Your task to perform on an android device: Open Google Chrome and click the shortcut for Amazon.com Image 0: 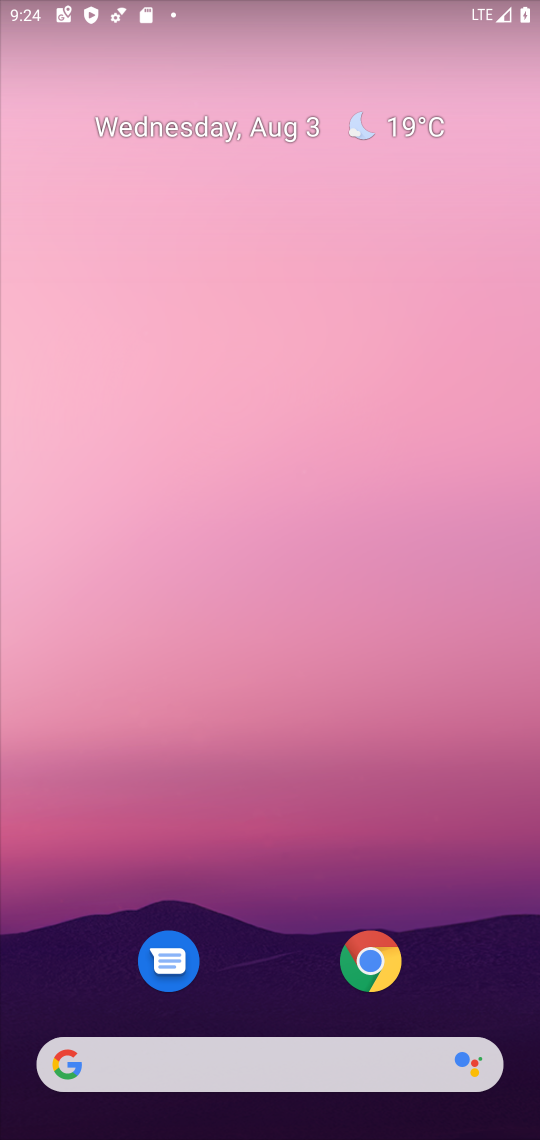
Step 0: click (389, 972)
Your task to perform on an android device: Open Google Chrome and click the shortcut for Amazon.com Image 1: 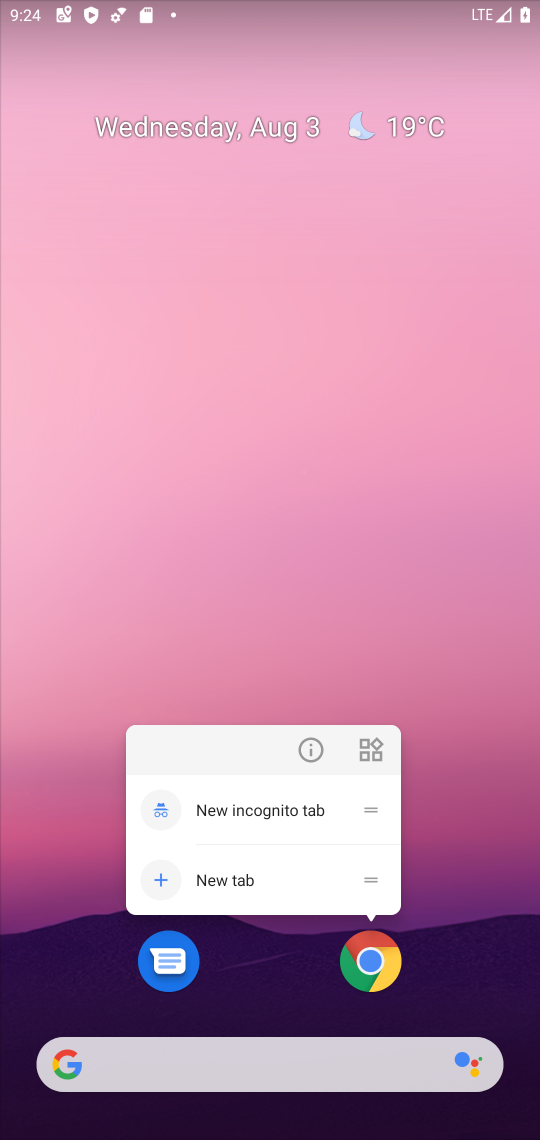
Step 1: click (391, 971)
Your task to perform on an android device: Open Google Chrome and click the shortcut for Amazon.com Image 2: 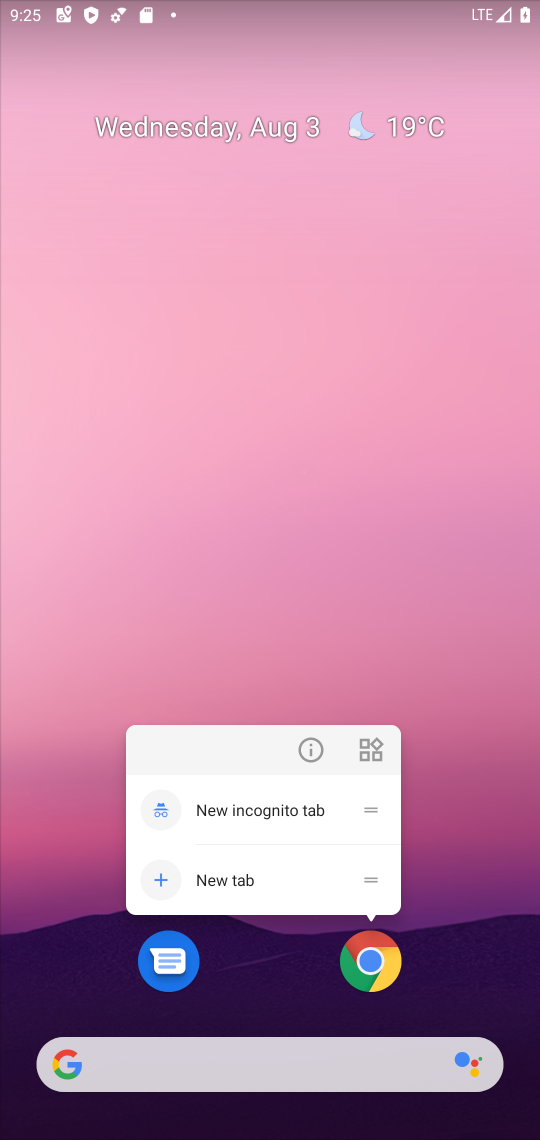
Step 2: click (388, 959)
Your task to perform on an android device: Open Google Chrome and click the shortcut for Amazon.com Image 3: 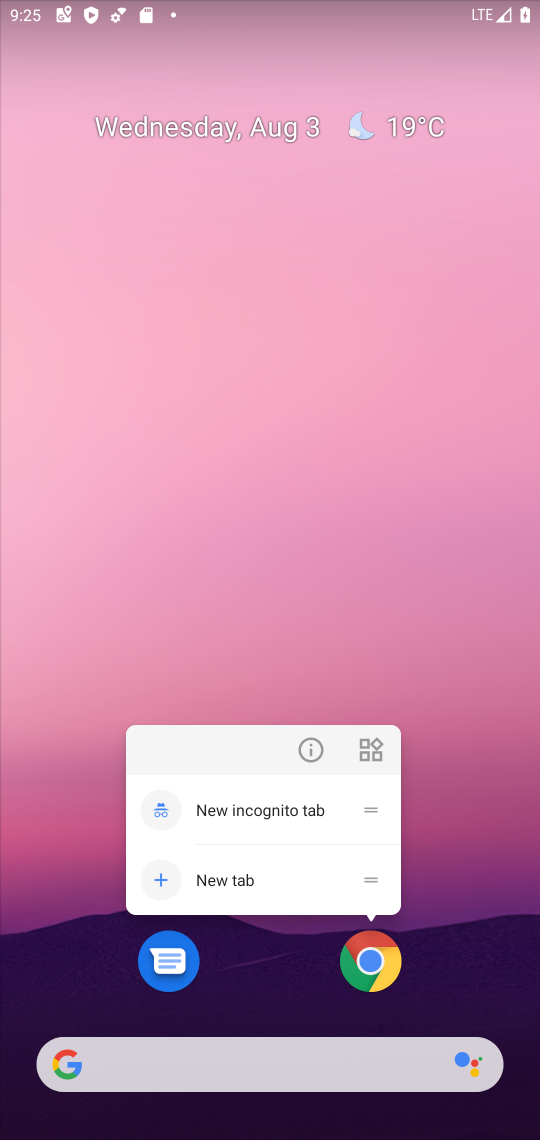
Step 3: click (371, 957)
Your task to perform on an android device: Open Google Chrome and click the shortcut for Amazon.com Image 4: 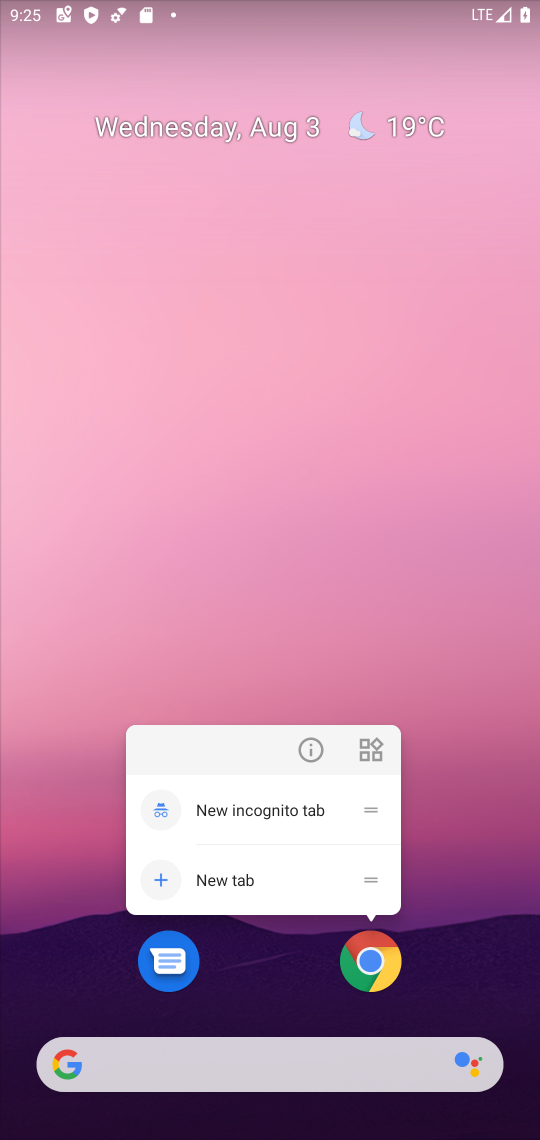
Step 4: click (369, 954)
Your task to perform on an android device: Open Google Chrome and click the shortcut for Amazon.com Image 5: 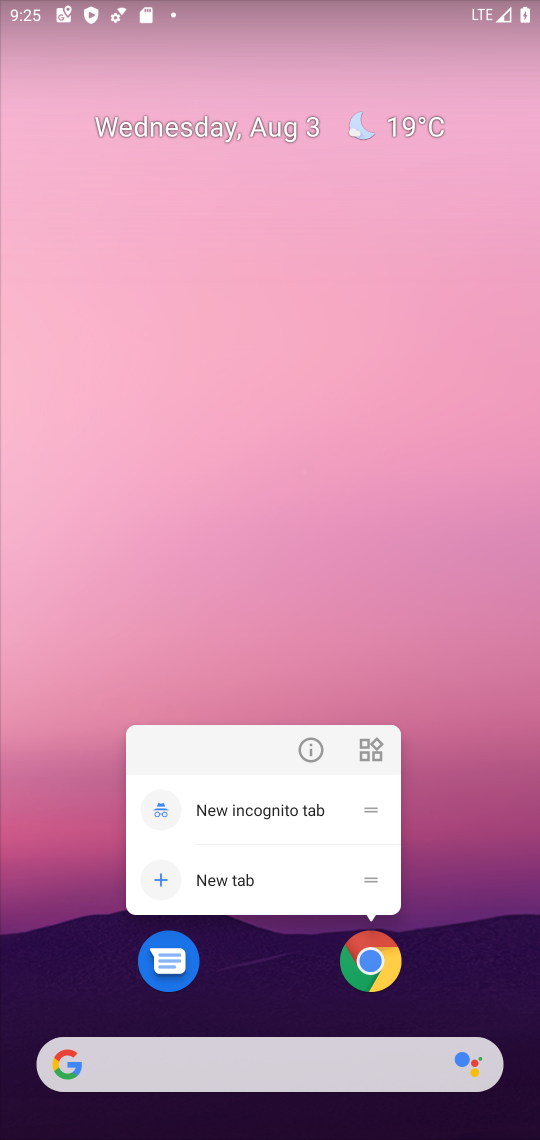
Step 5: click (306, 769)
Your task to perform on an android device: Open Google Chrome and click the shortcut for Amazon.com Image 6: 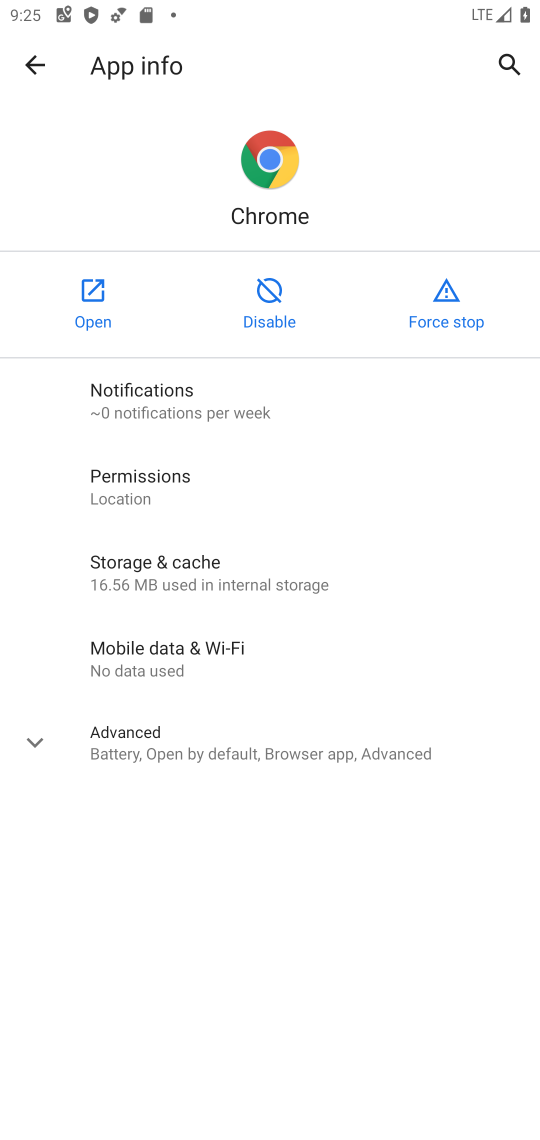
Step 6: click (96, 301)
Your task to perform on an android device: Open Google Chrome and click the shortcut for Amazon.com Image 7: 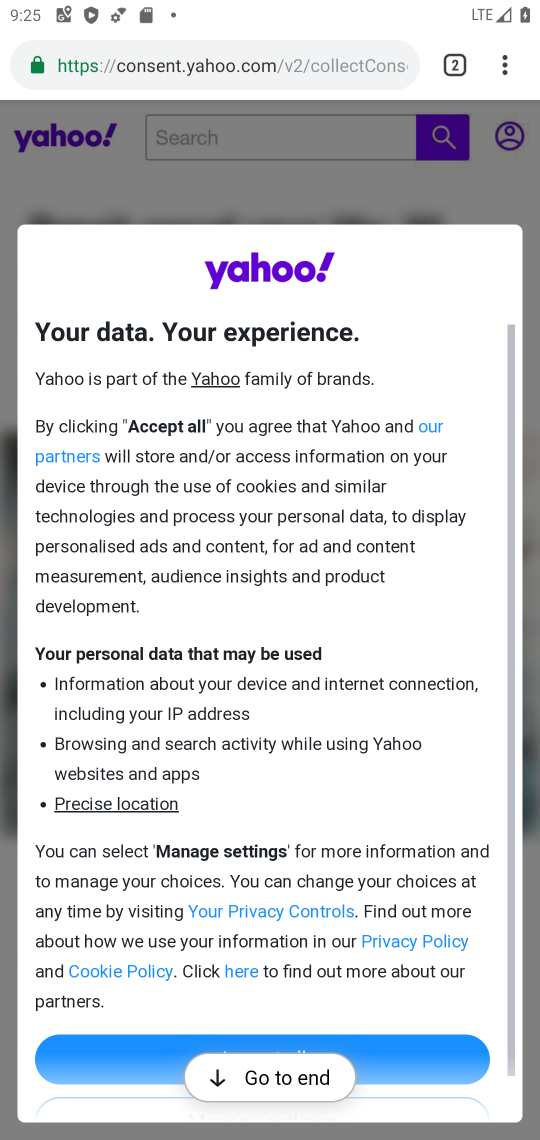
Step 7: click (457, 82)
Your task to perform on an android device: Open Google Chrome and click the shortcut for Amazon.com Image 8: 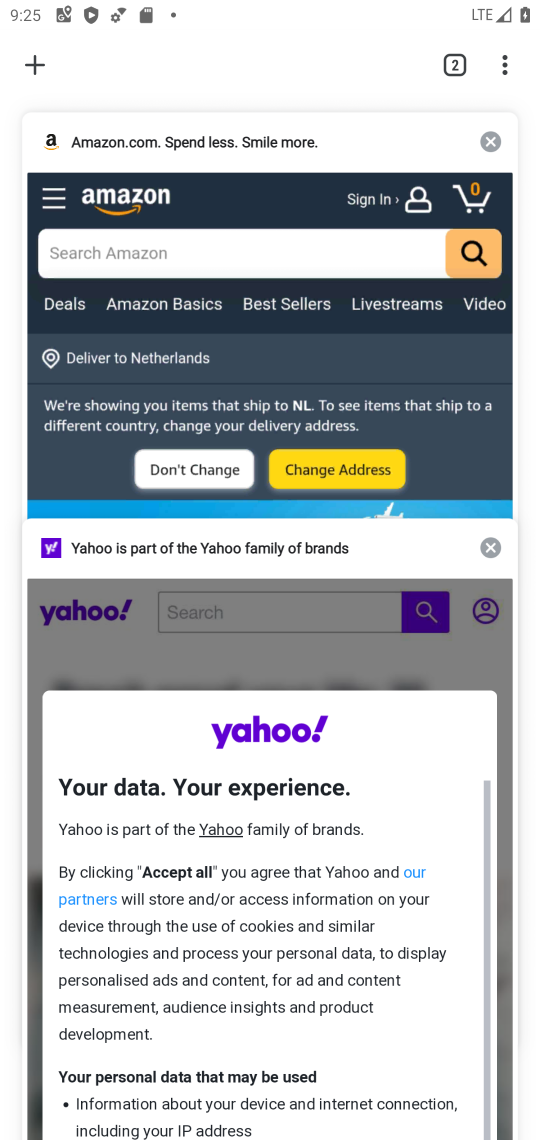
Step 8: click (126, 198)
Your task to perform on an android device: Open Google Chrome and click the shortcut for Amazon.com Image 9: 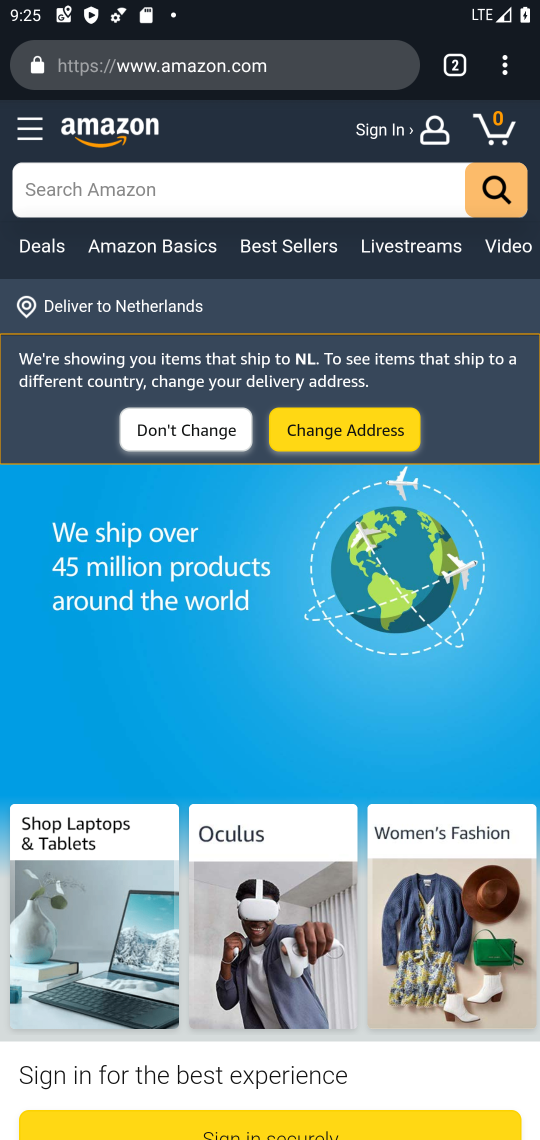
Step 9: task complete